Your task to perform on an android device: move a message to another label in the gmail app Image 0: 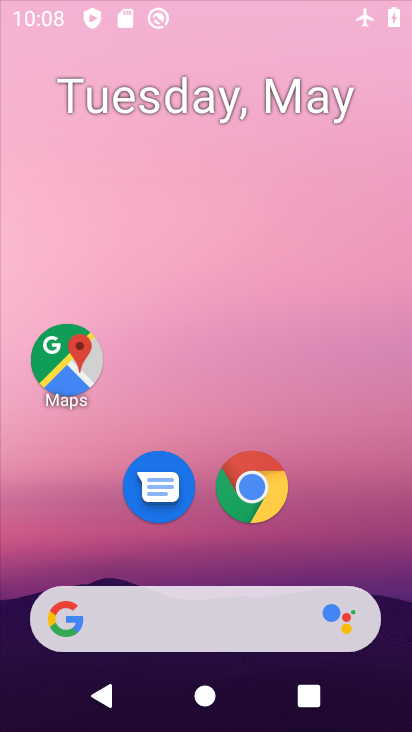
Step 0: click (293, 64)
Your task to perform on an android device: move a message to another label in the gmail app Image 1: 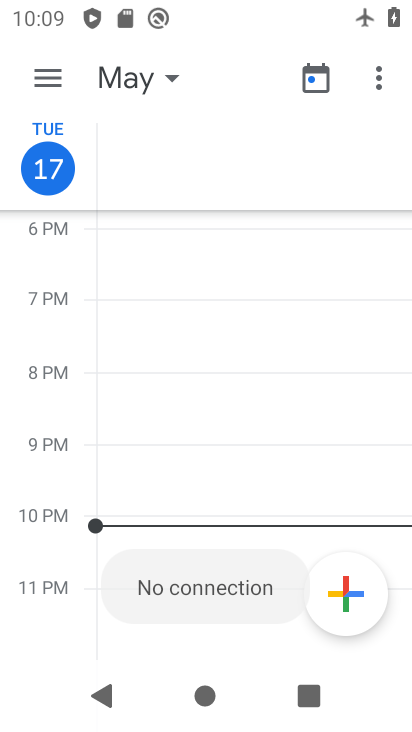
Step 1: press home button
Your task to perform on an android device: move a message to another label in the gmail app Image 2: 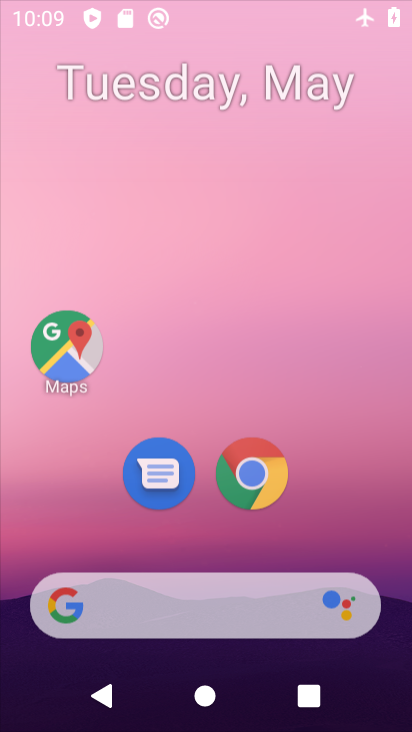
Step 2: drag from (237, 520) to (317, 63)
Your task to perform on an android device: move a message to another label in the gmail app Image 3: 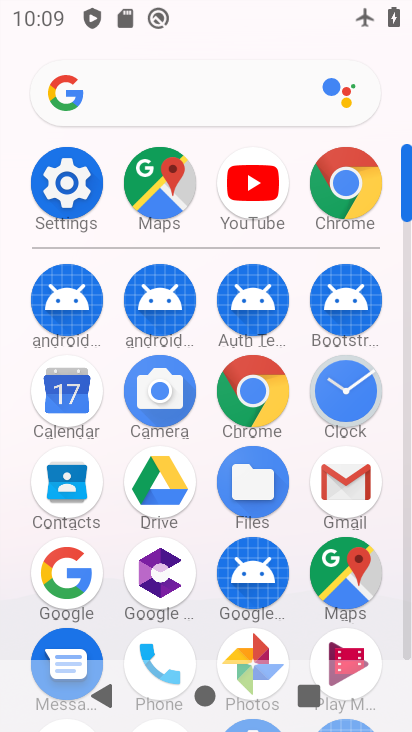
Step 3: click (334, 492)
Your task to perform on an android device: move a message to another label in the gmail app Image 4: 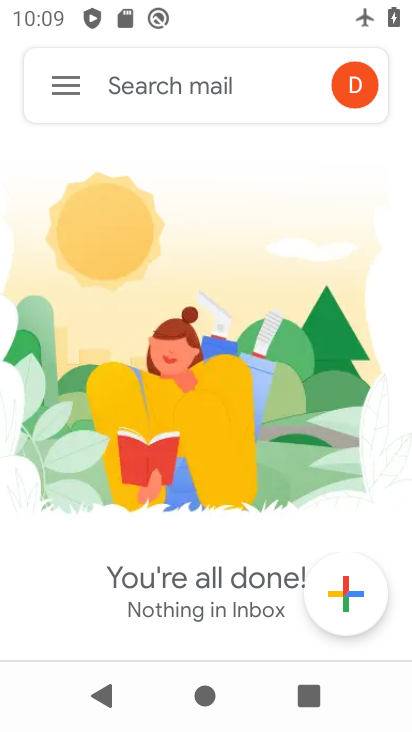
Step 4: click (53, 90)
Your task to perform on an android device: move a message to another label in the gmail app Image 5: 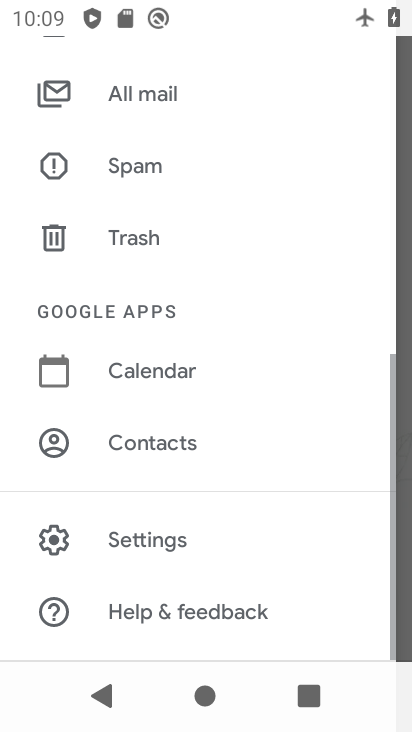
Step 5: drag from (148, 491) to (218, 37)
Your task to perform on an android device: move a message to another label in the gmail app Image 6: 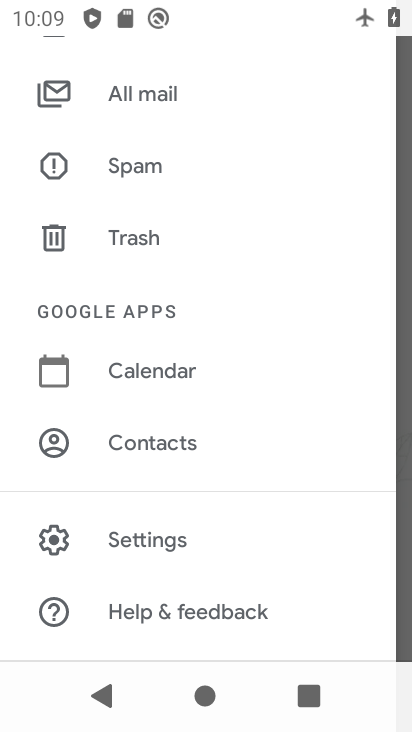
Step 6: click (130, 83)
Your task to perform on an android device: move a message to another label in the gmail app Image 7: 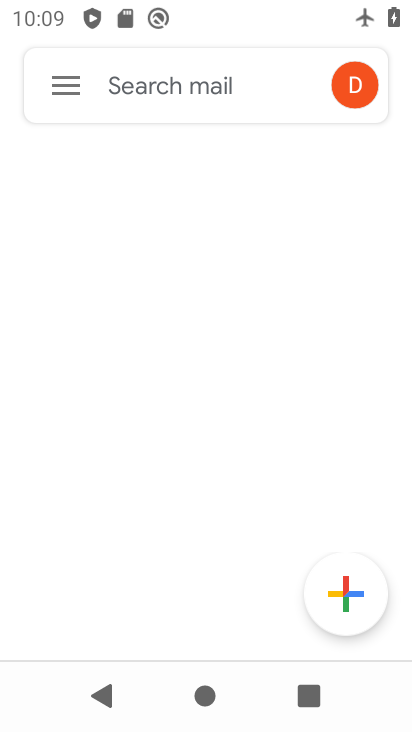
Step 7: task complete